Your task to perform on an android device: Search for pizza restaurants on Maps Image 0: 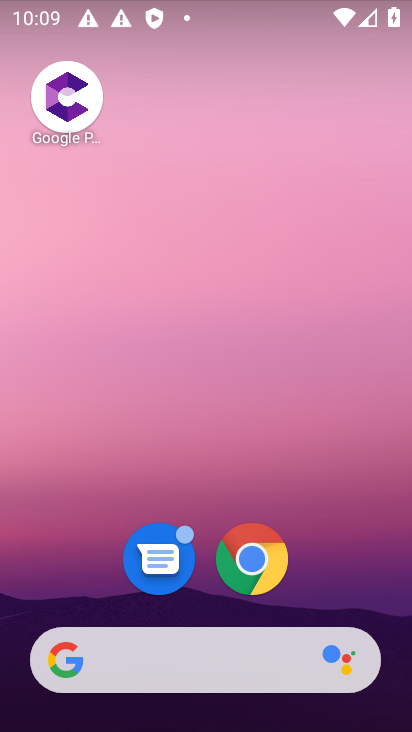
Step 0: drag from (205, 574) to (193, 170)
Your task to perform on an android device: Search for pizza restaurants on Maps Image 1: 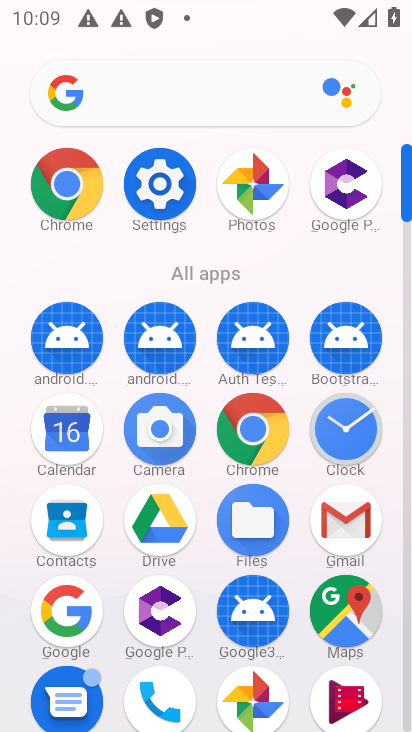
Step 1: click (341, 624)
Your task to perform on an android device: Search for pizza restaurants on Maps Image 2: 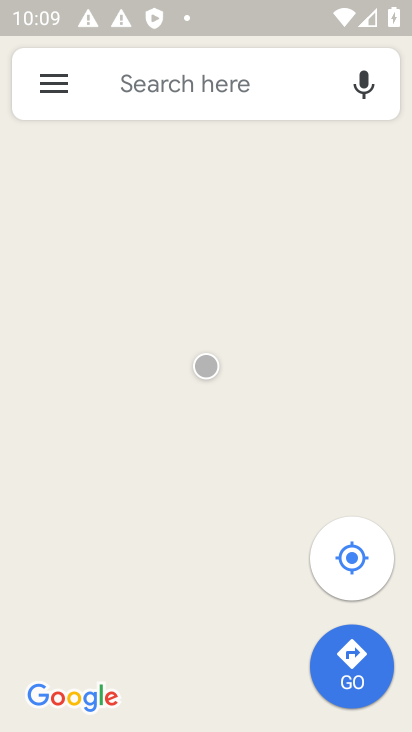
Step 2: task complete